Your task to perform on an android device: Open the Play Movies app and select the watchlist tab. Image 0: 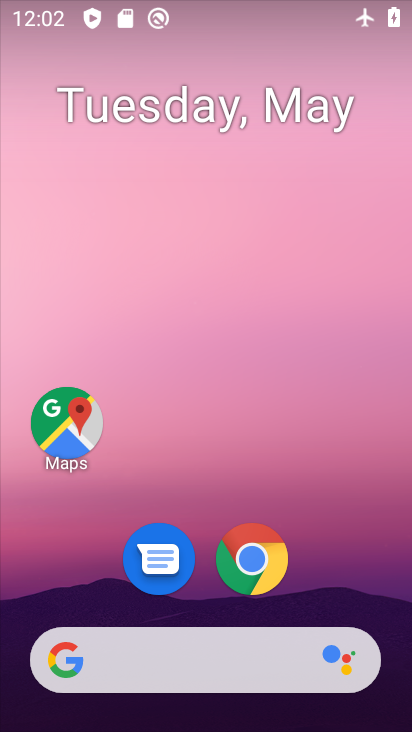
Step 0: drag from (62, 606) to (301, 86)
Your task to perform on an android device: Open the Play Movies app and select the watchlist tab. Image 1: 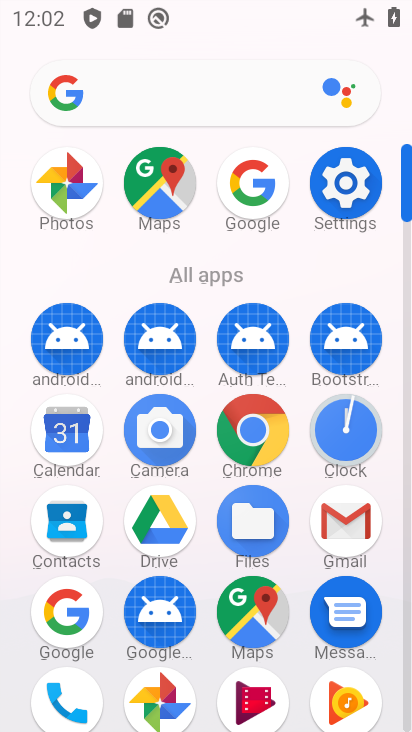
Step 1: drag from (256, 568) to (343, 310)
Your task to perform on an android device: Open the Play Movies app and select the watchlist tab. Image 2: 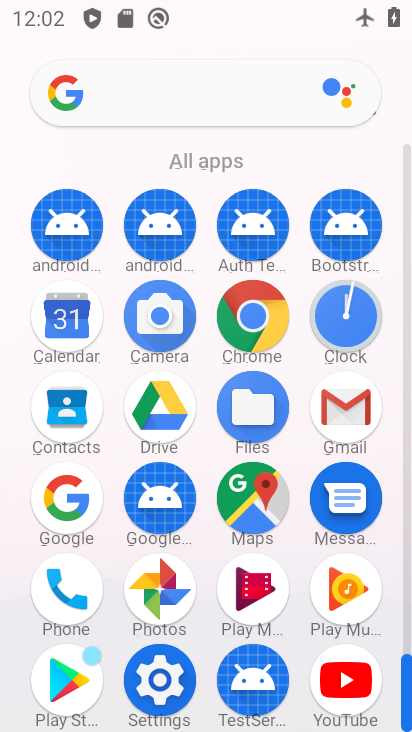
Step 2: click (232, 592)
Your task to perform on an android device: Open the Play Movies app and select the watchlist tab. Image 3: 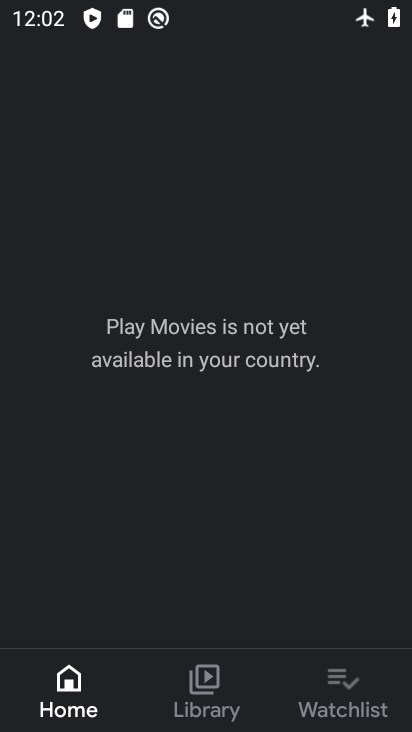
Step 3: click (387, 675)
Your task to perform on an android device: Open the Play Movies app and select the watchlist tab. Image 4: 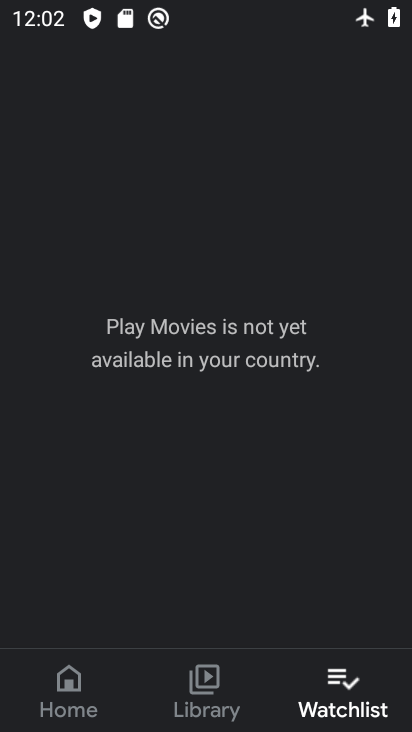
Step 4: task complete